Your task to perform on an android device: What's the US dollar exchange rate against the Euro? Image 0: 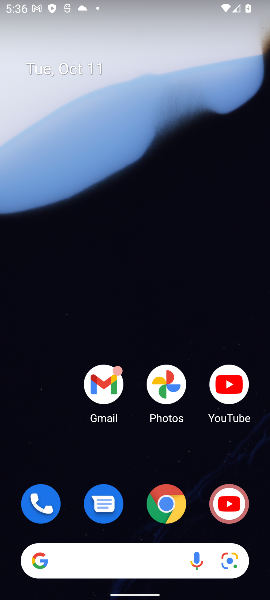
Step 0: click (144, 559)
Your task to perform on an android device: What's the US dollar exchange rate against the Euro? Image 1: 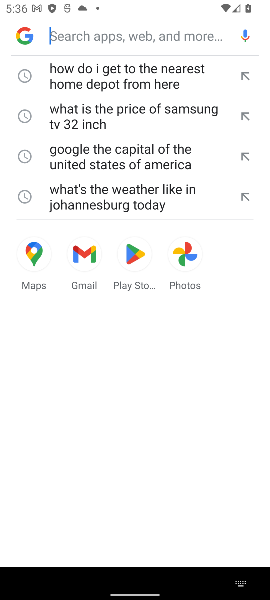
Step 1: click (72, 31)
Your task to perform on an android device: What's the US dollar exchange rate against the Euro? Image 2: 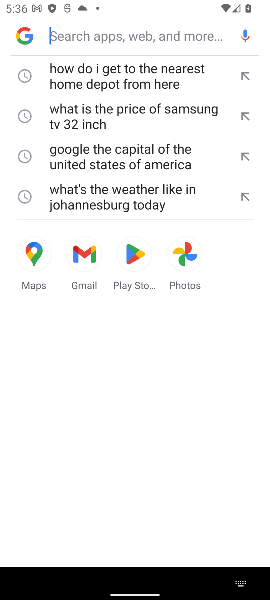
Step 2: type "What's the US dollar exchange rate against the Euro?"
Your task to perform on an android device: What's the US dollar exchange rate against the Euro? Image 3: 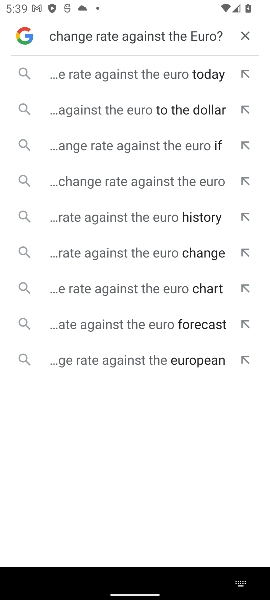
Step 3: click (165, 82)
Your task to perform on an android device: What's the US dollar exchange rate against the Euro? Image 4: 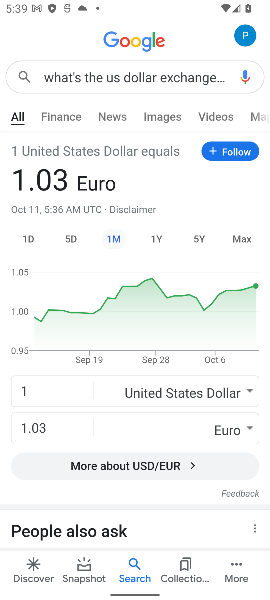
Step 4: task complete